Your task to perform on an android device: Add "asus rog" to the cart on ebay, then select checkout. Image 0: 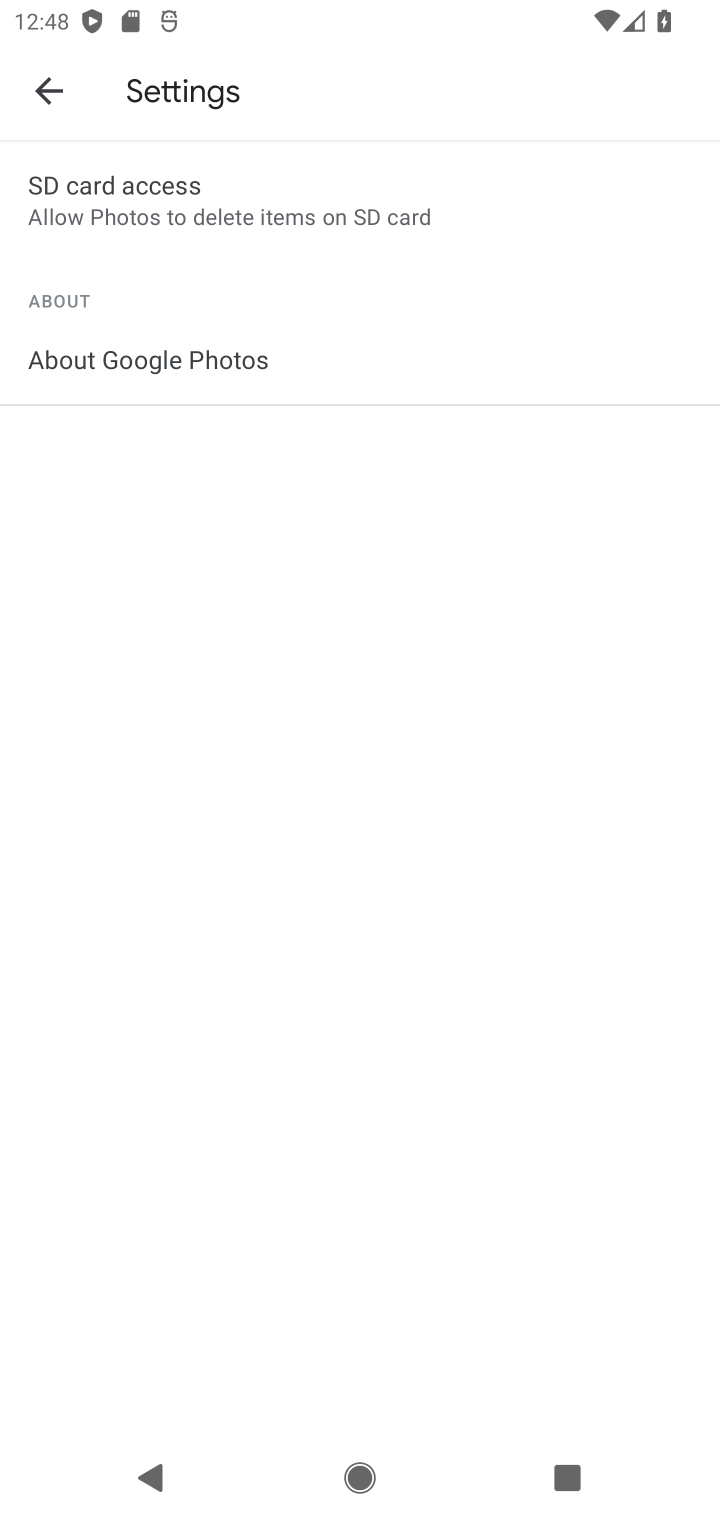
Step 0: press home button
Your task to perform on an android device: Add "asus rog" to the cart on ebay, then select checkout. Image 1: 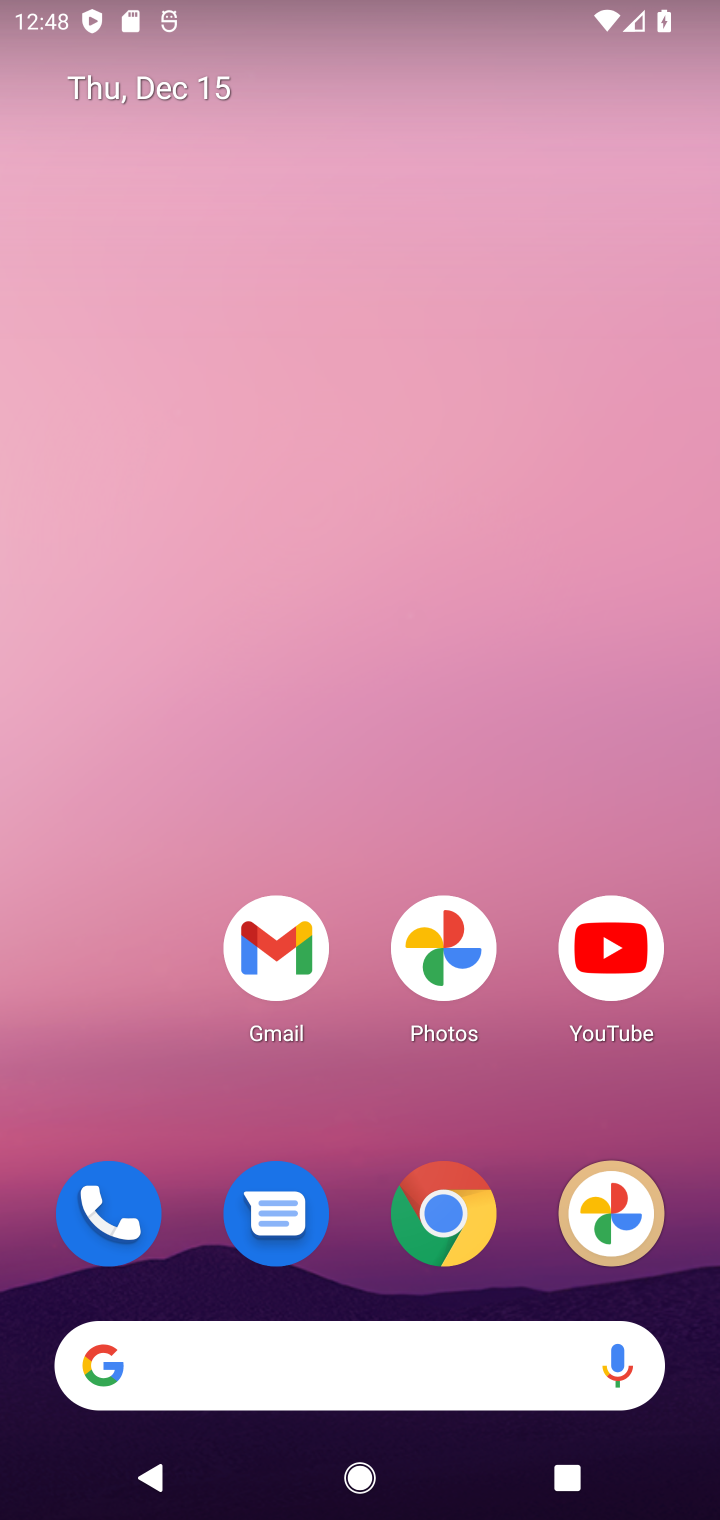
Step 1: click (463, 1207)
Your task to perform on an android device: Add "asus rog" to the cart on ebay, then select checkout. Image 2: 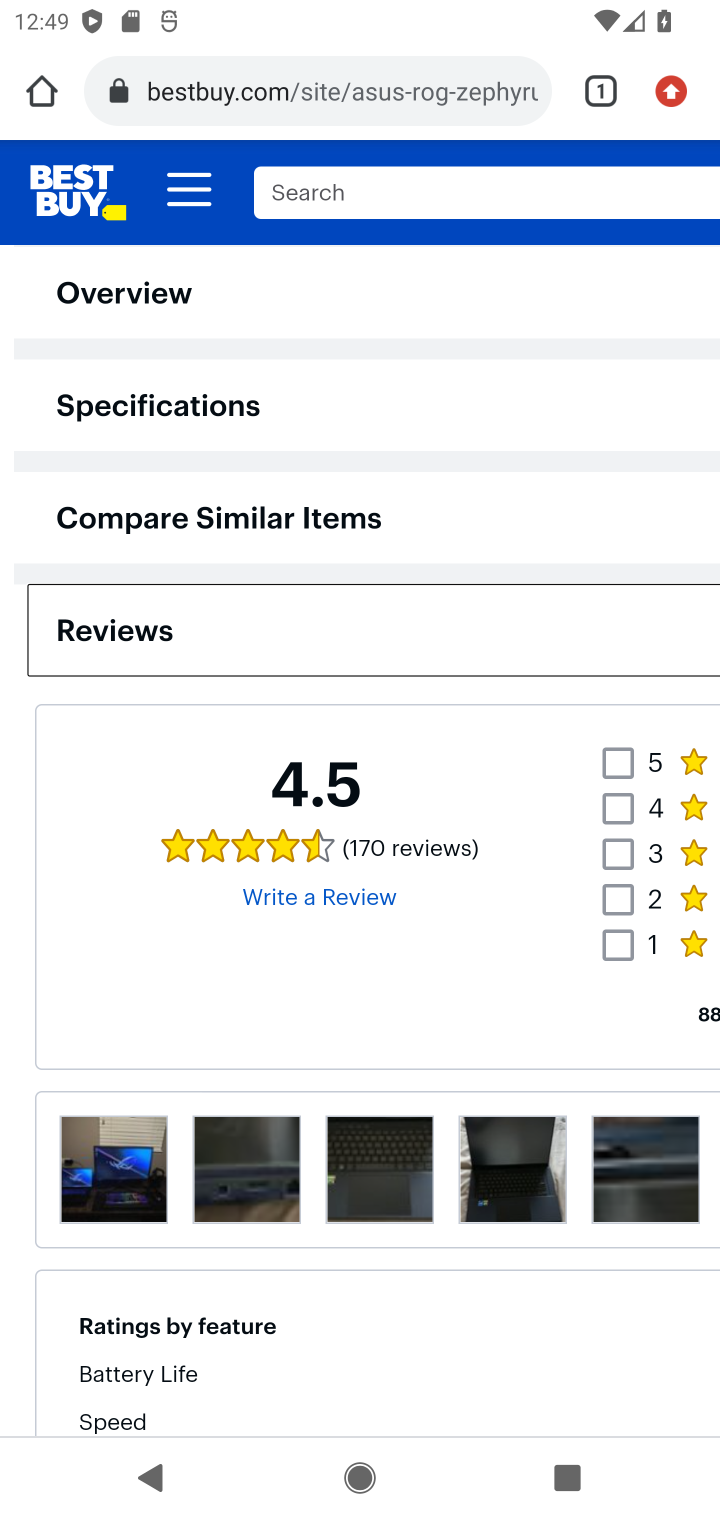
Step 2: click (356, 195)
Your task to perform on an android device: Add "asus rog" to the cart on ebay, then select checkout. Image 3: 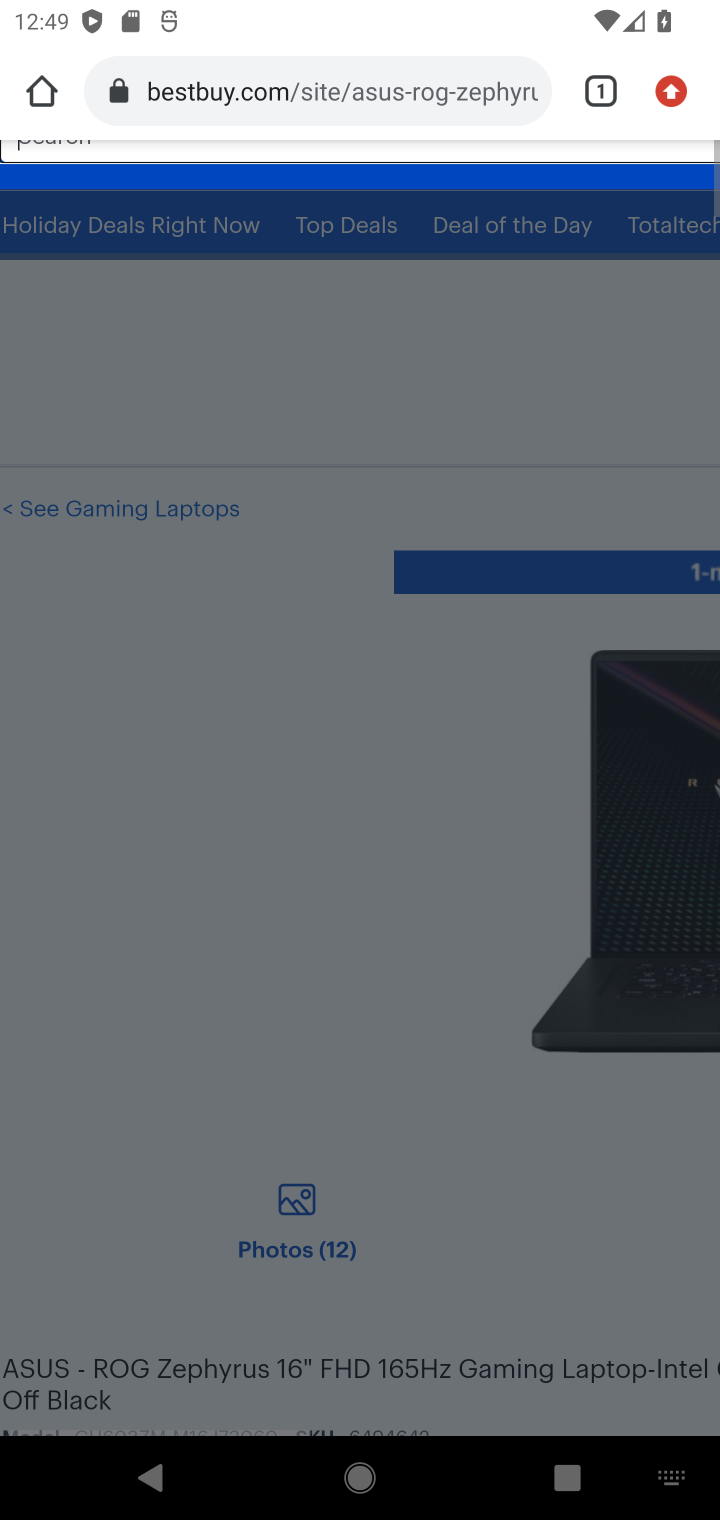
Step 3: click (296, 101)
Your task to perform on an android device: Add "asus rog" to the cart on ebay, then select checkout. Image 4: 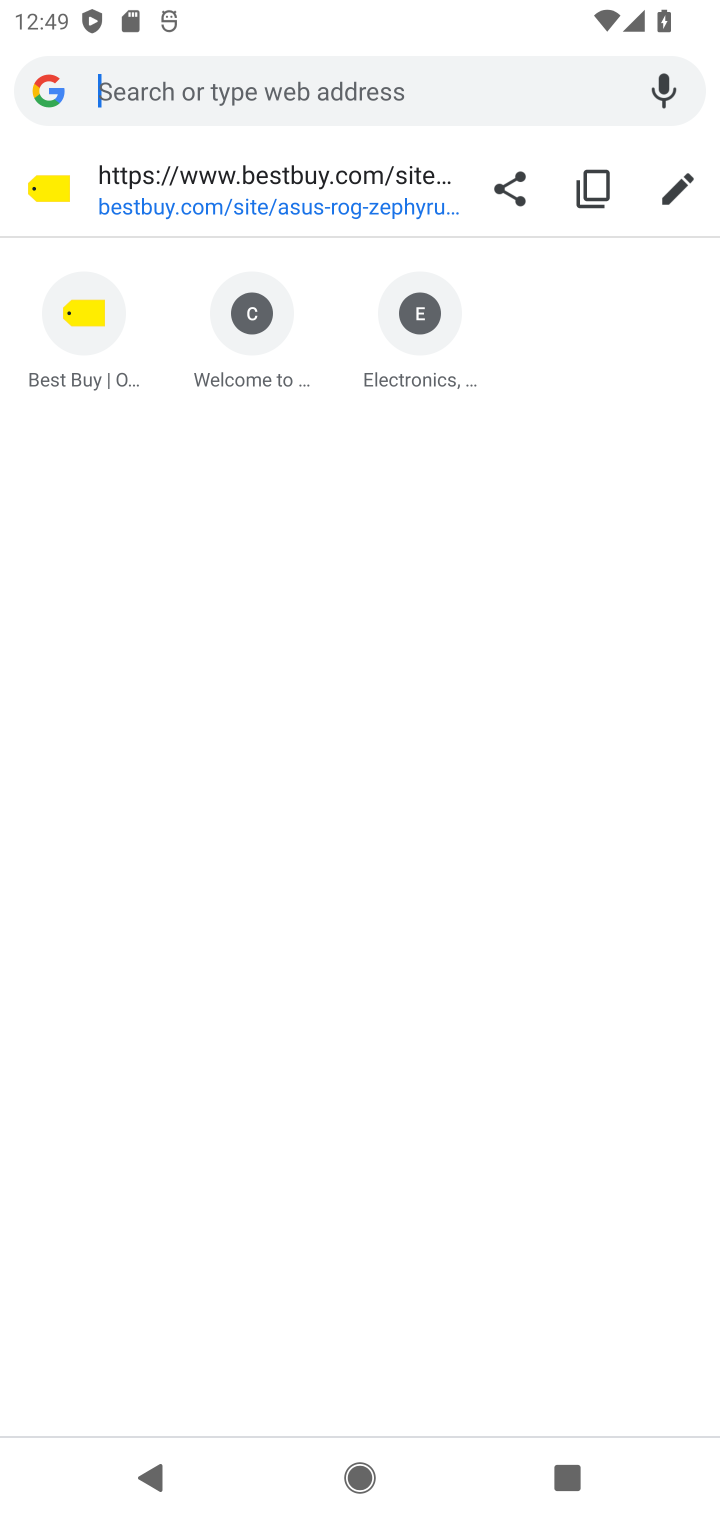
Step 4: type "ebay"
Your task to perform on an android device: Add "asus rog" to the cart on ebay, then select checkout. Image 5: 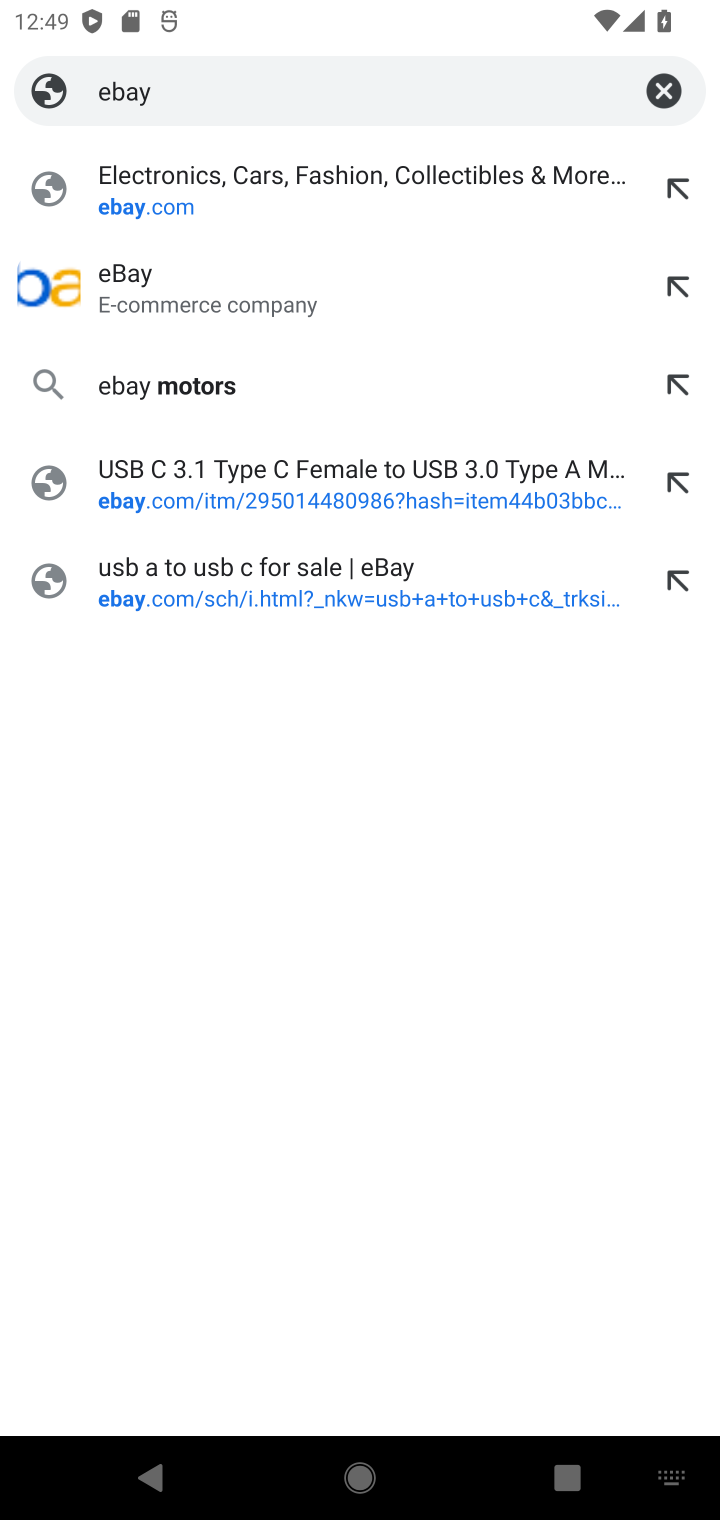
Step 5: click (178, 186)
Your task to perform on an android device: Add "asus rog" to the cart on ebay, then select checkout. Image 6: 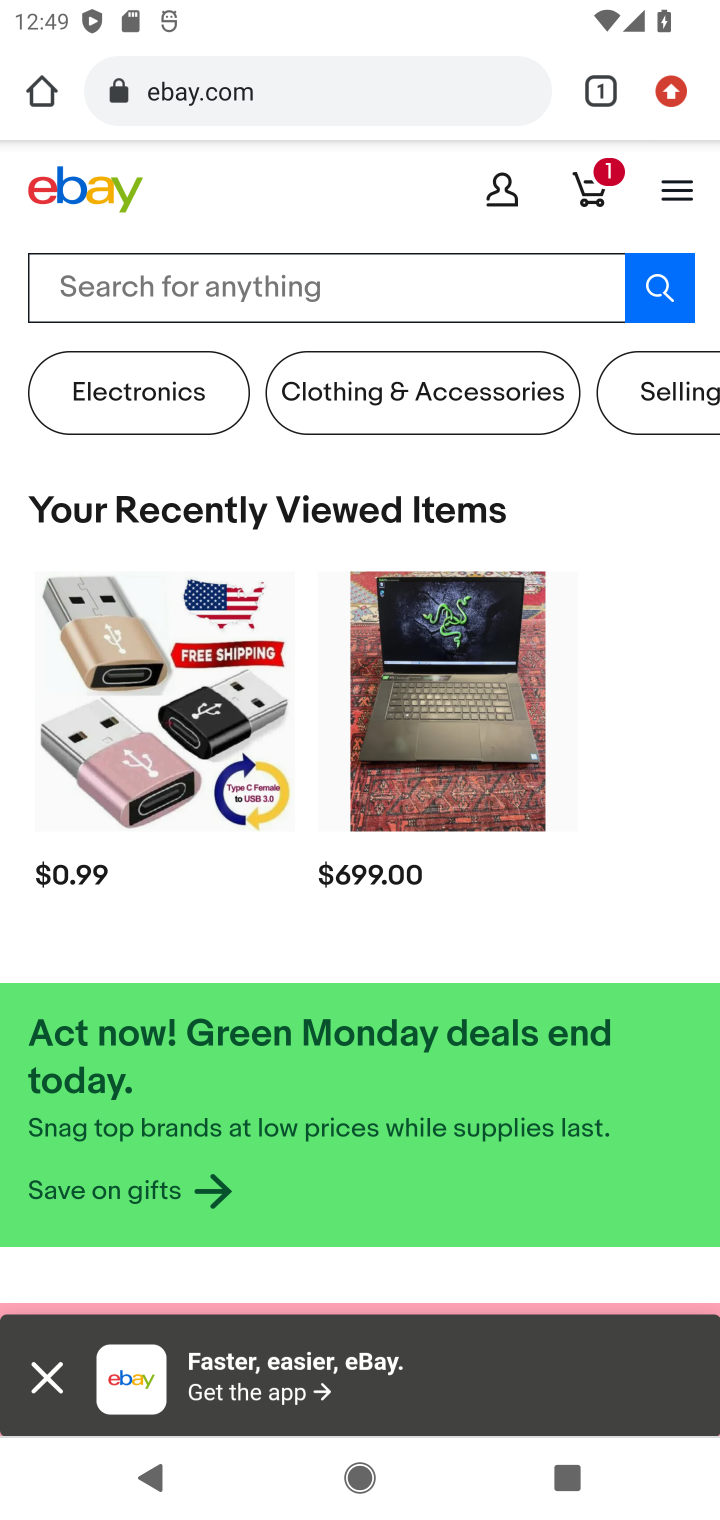
Step 6: click (246, 289)
Your task to perform on an android device: Add "asus rog" to the cart on ebay, then select checkout. Image 7: 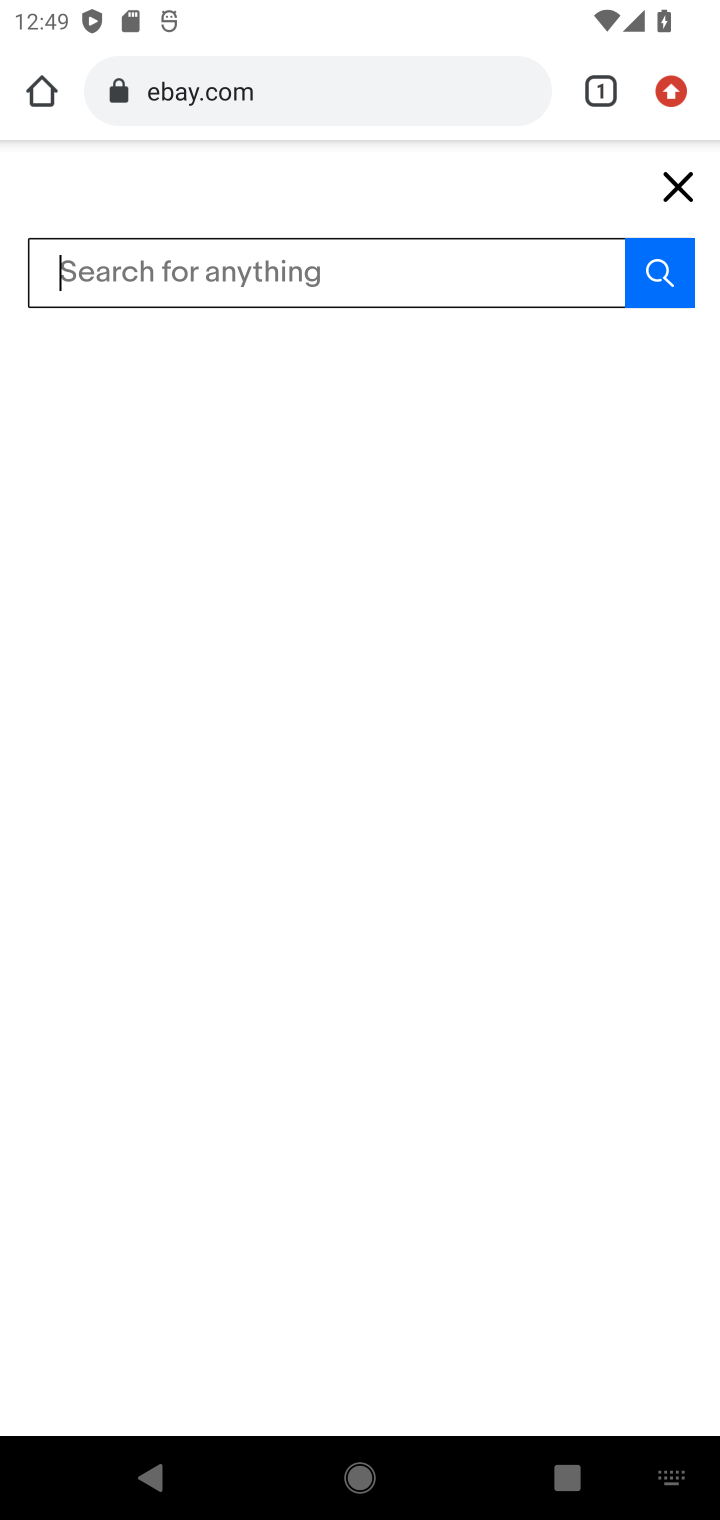
Step 7: type "asus ror"
Your task to perform on an android device: Add "asus rog" to the cart on ebay, then select checkout. Image 8: 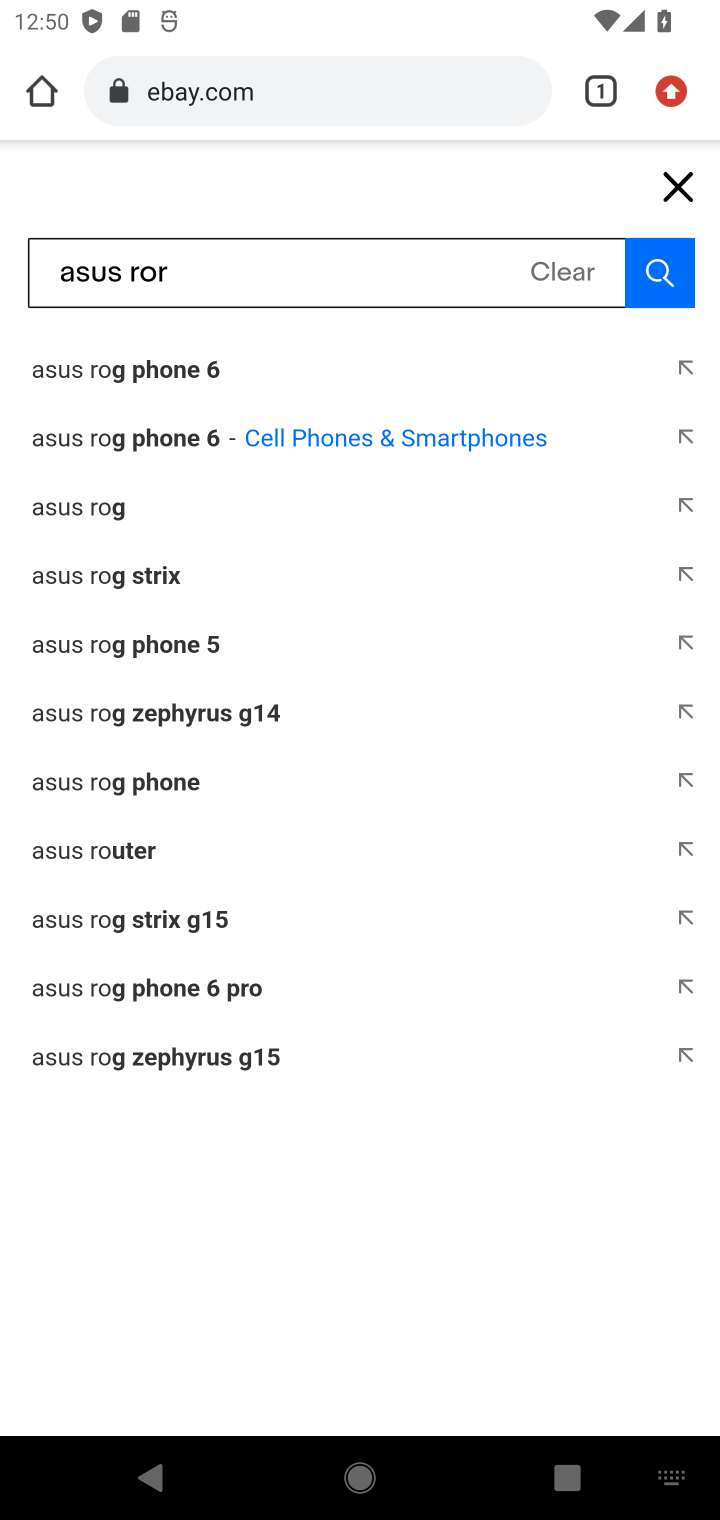
Step 8: click (121, 491)
Your task to perform on an android device: Add "asus rog" to the cart on ebay, then select checkout. Image 9: 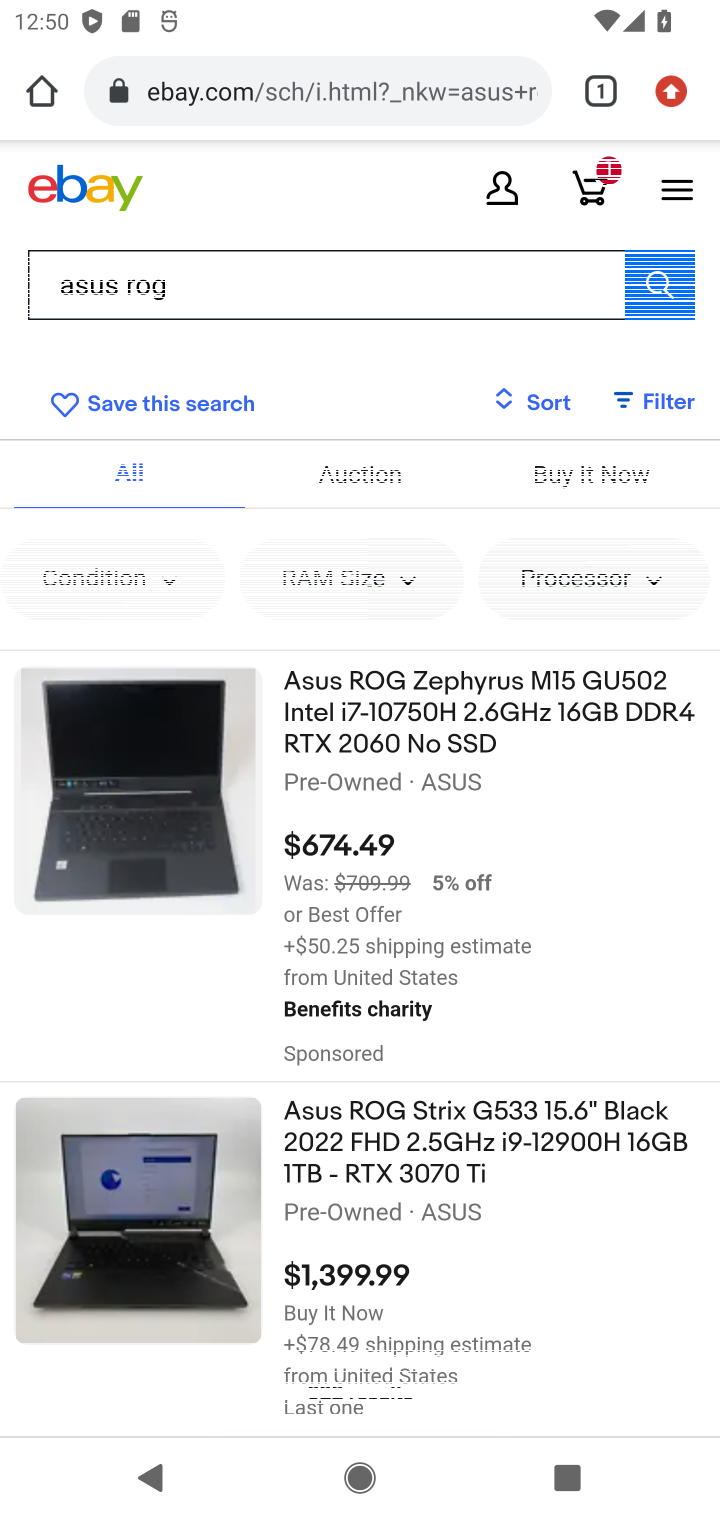
Step 9: click (431, 704)
Your task to perform on an android device: Add "asus rog" to the cart on ebay, then select checkout. Image 10: 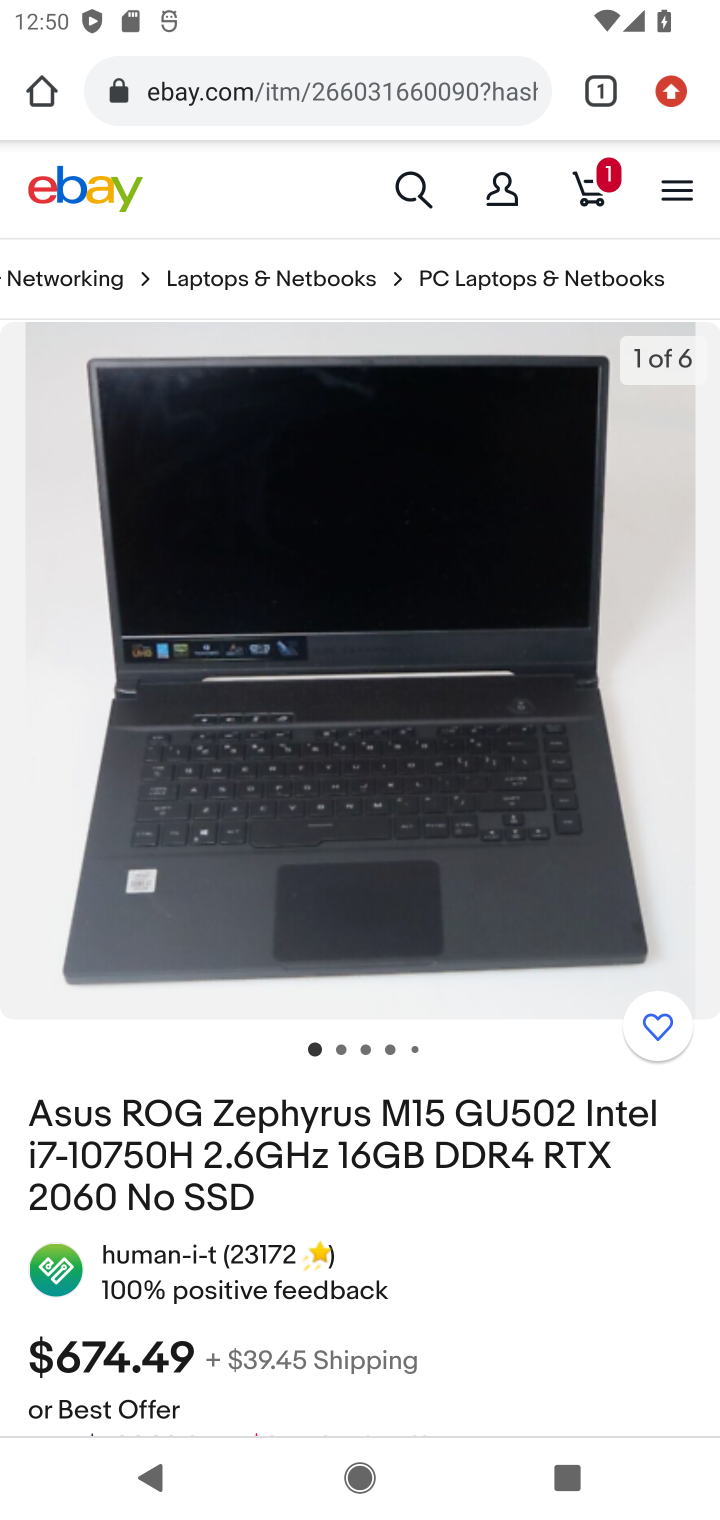
Step 10: drag from (402, 1363) to (330, 531)
Your task to perform on an android device: Add "asus rog" to the cart on ebay, then select checkout. Image 11: 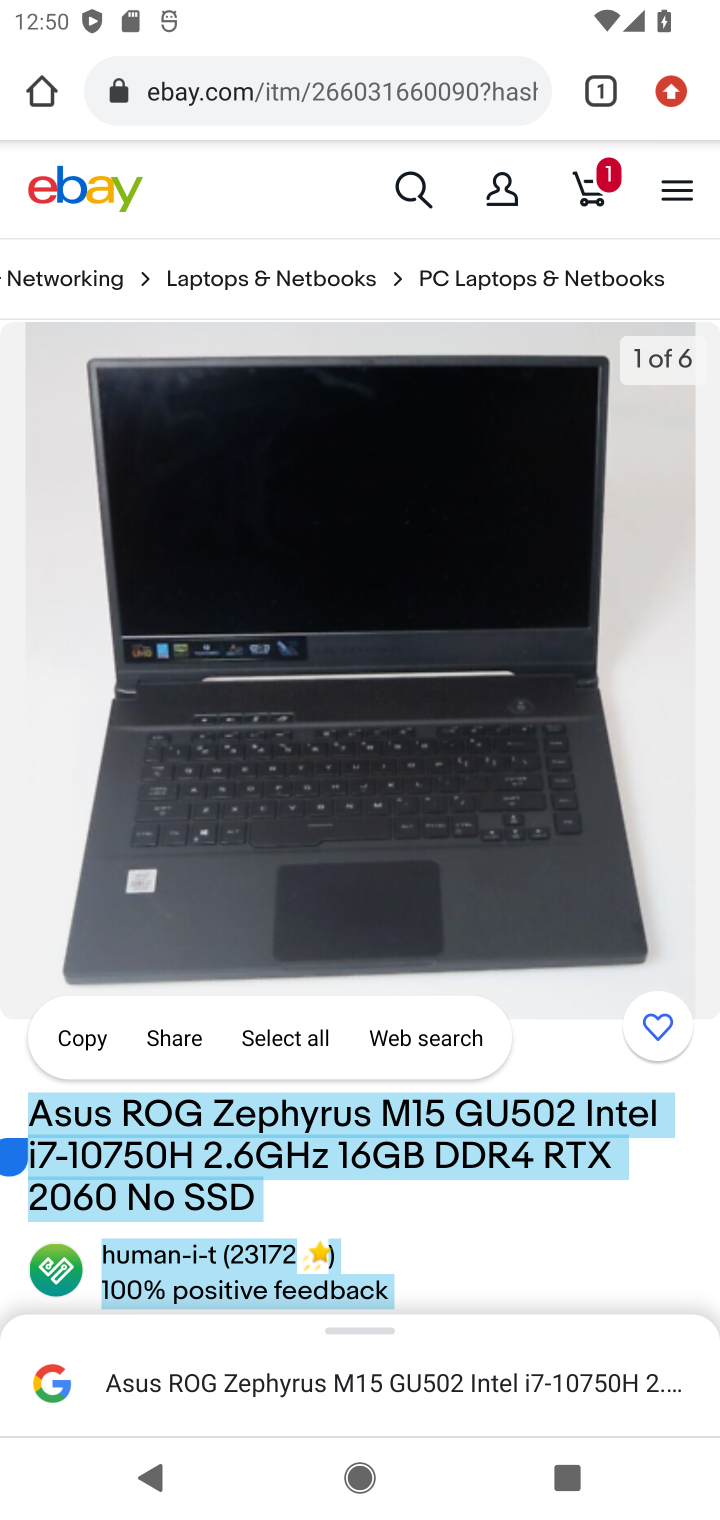
Step 11: click (629, 1266)
Your task to perform on an android device: Add "asus rog" to the cart on ebay, then select checkout. Image 12: 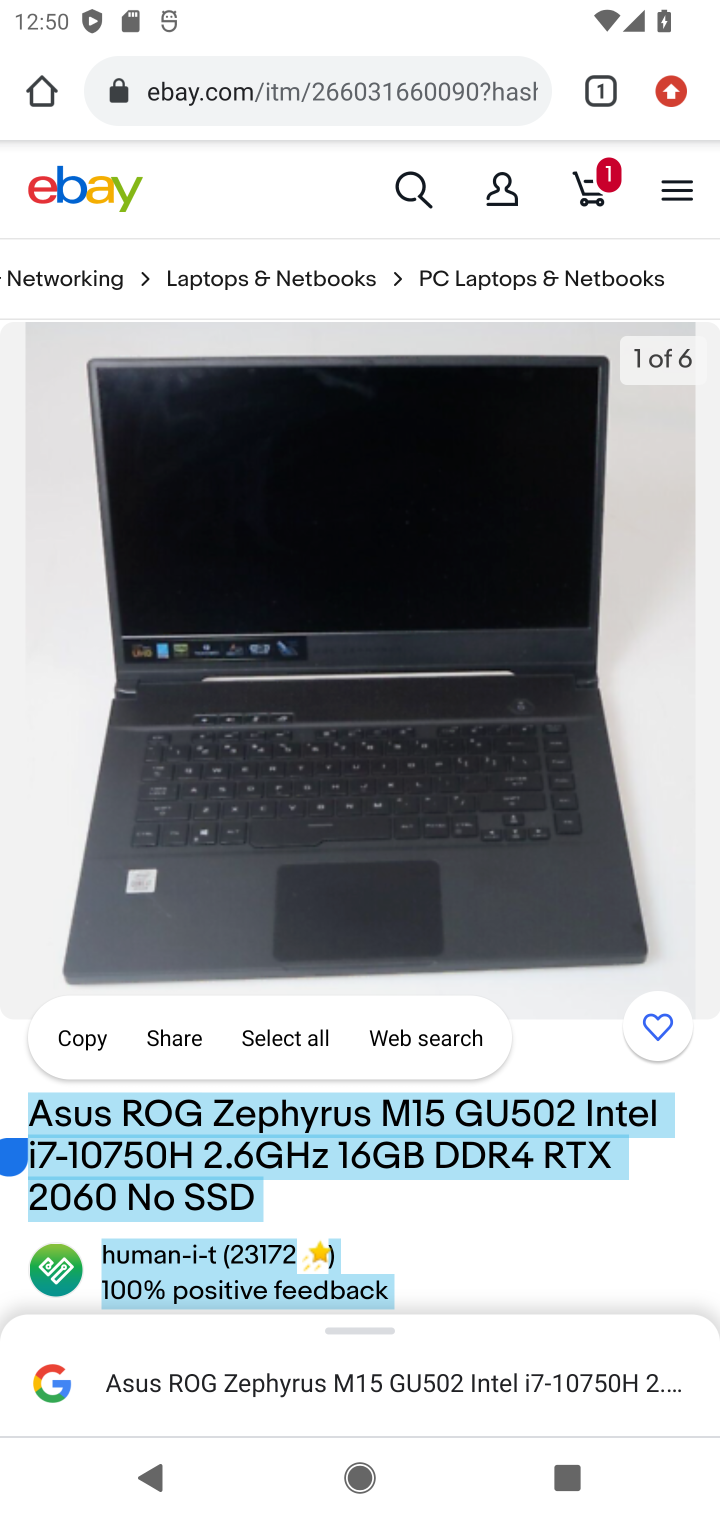
Step 12: task complete